Your task to perform on an android device: What's the weather today? Image 0: 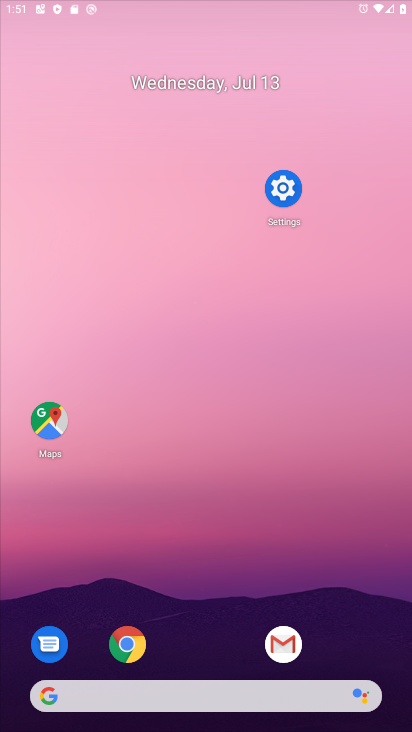
Step 0: press home button
Your task to perform on an android device: What's the weather today? Image 1: 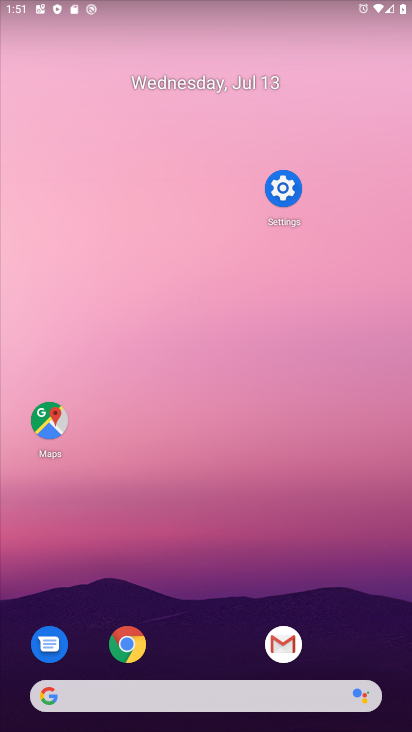
Step 1: click (177, 694)
Your task to perform on an android device: What's the weather today? Image 2: 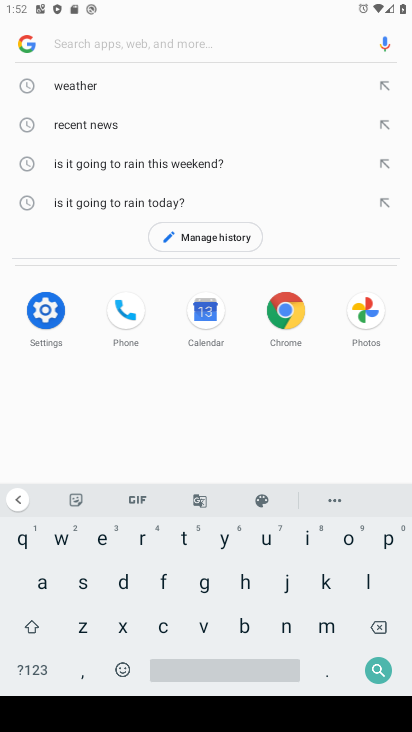
Step 2: click (108, 87)
Your task to perform on an android device: What's the weather today? Image 3: 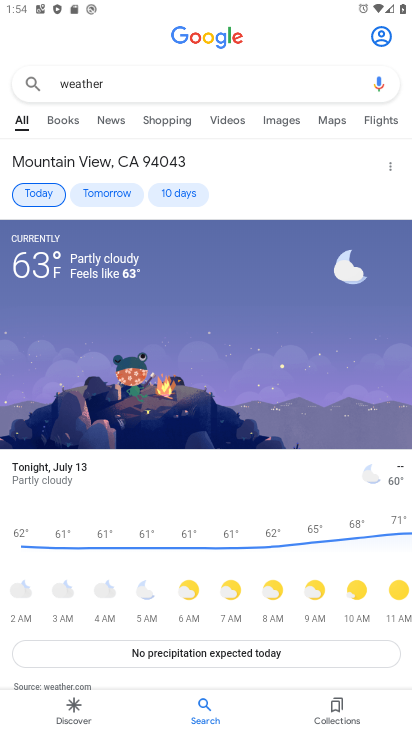
Step 3: task complete